Your task to perform on an android device: Show me productivity apps on the Play Store Image 0: 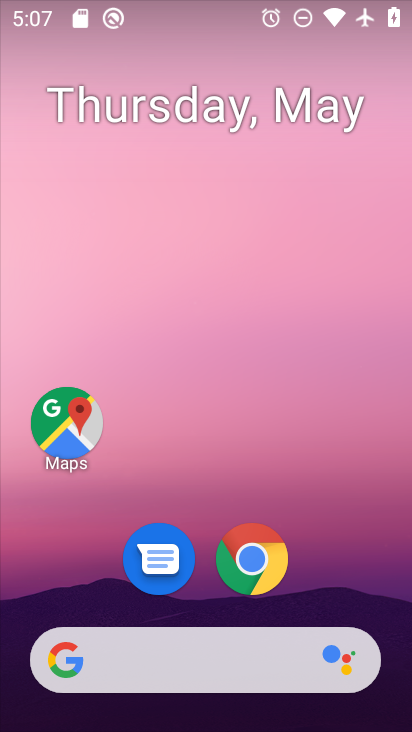
Step 0: drag from (322, 388) to (111, 61)
Your task to perform on an android device: Show me productivity apps on the Play Store Image 1: 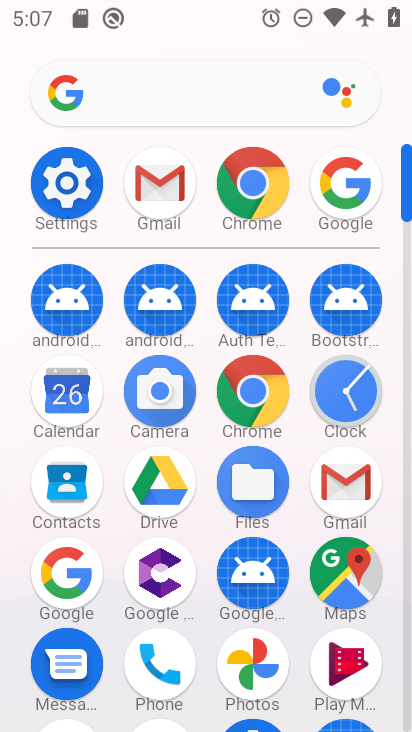
Step 1: drag from (222, 609) to (209, 64)
Your task to perform on an android device: Show me productivity apps on the Play Store Image 2: 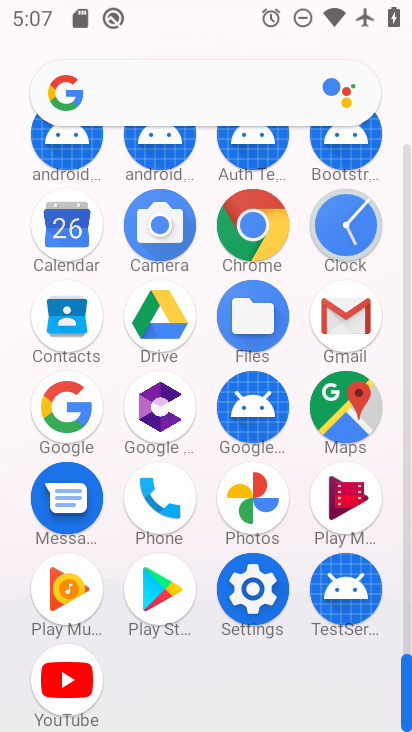
Step 2: click (168, 596)
Your task to perform on an android device: Show me productivity apps on the Play Store Image 3: 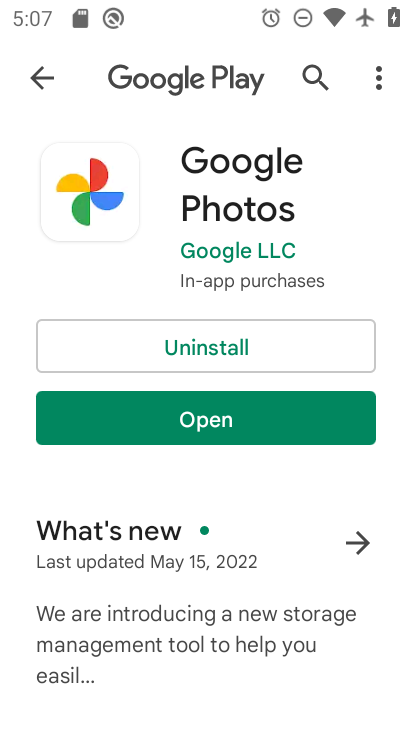
Step 3: click (51, 61)
Your task to perform on an android device: Show me productivity apps on the Play Store Image 4: 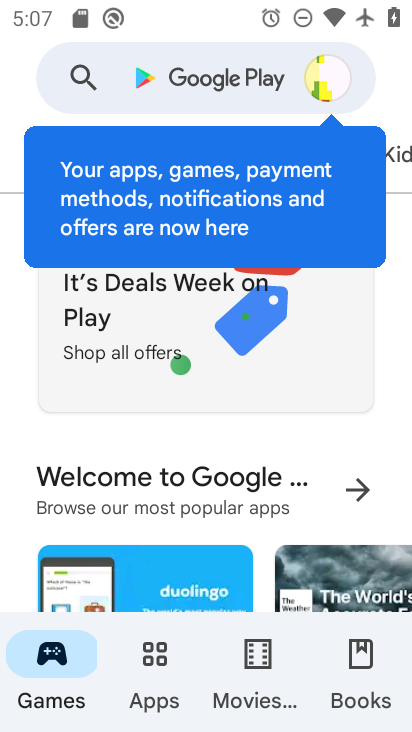
Step 4: click (142, 682)
Your task to perform on an android device: Show me productivity apps on the Play Store Image 5: 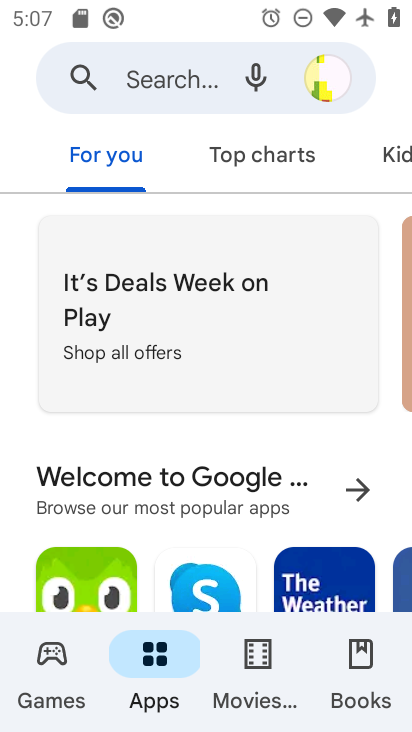
Step 5: click (178, 74)
Your task to perform on an android device: Show me productivity apps on the Play Store Image 6: 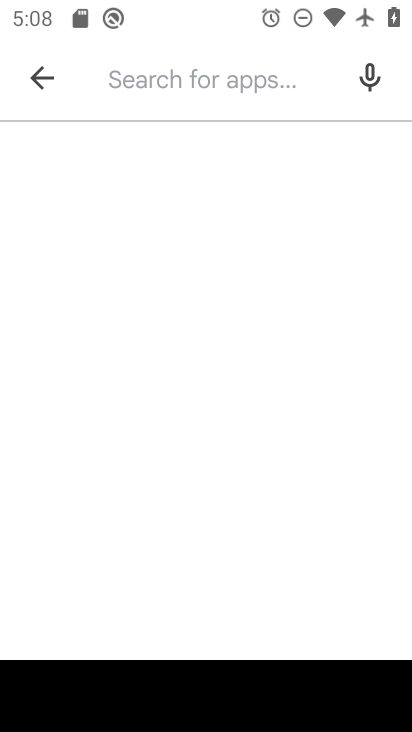
Step 6: type "productivity apps"
Your task to perform on an android device: Show me productivity apps on the Play Store Image 7: 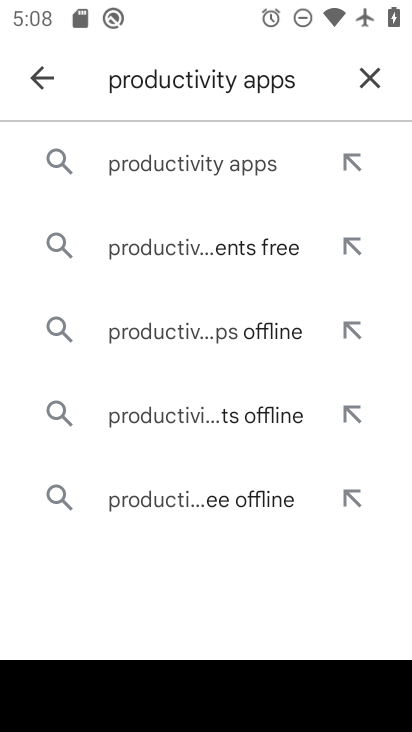
Step 7: click (179, 159)
Your task to perform on an android device: Show me productivity apps on the Play Store Image 8: 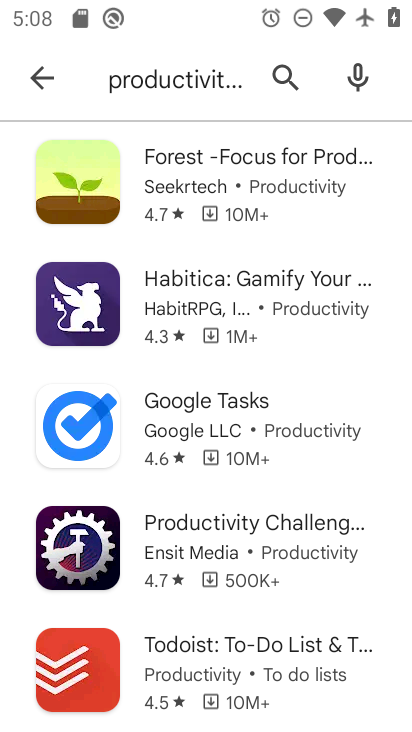
Step 8: task complete